Your task to perform on an android device: turn notification dots on Image 0: 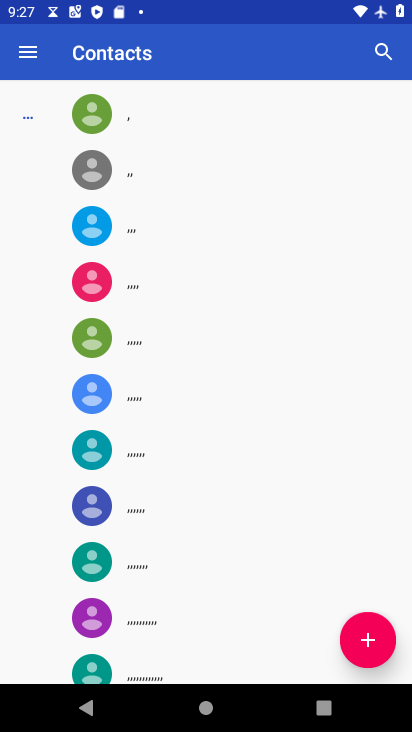
Step 0: press home button
Your task to perform on an android device: turn notification dots on Image 1: 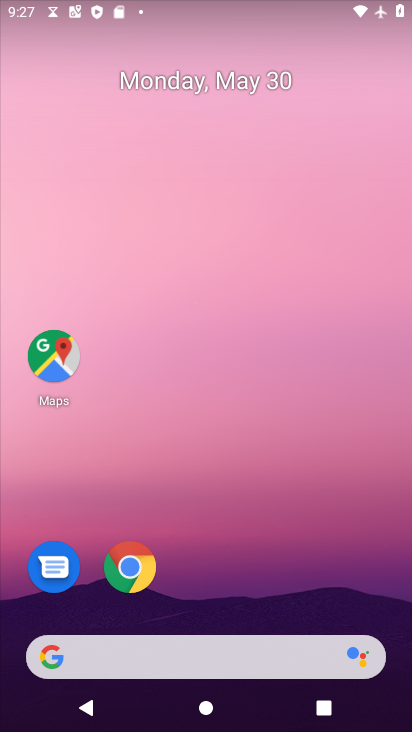
Step 1: drag from (249, 590) to (239, 183)
Your task to perform on an android device: turn notification dots on Image 2: 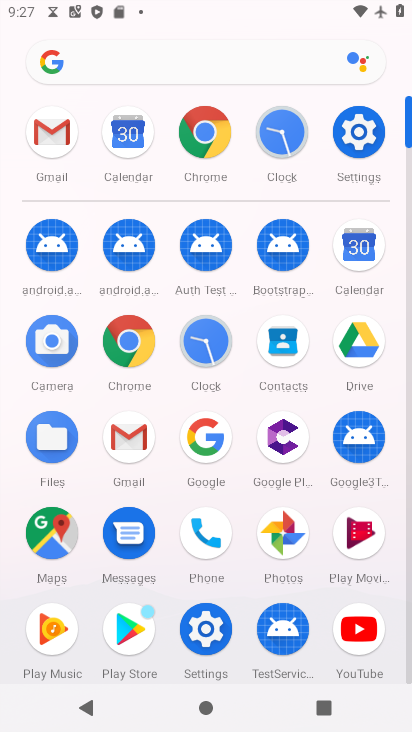
Step 2: click (348, 145)
Your task to perform on an android device: turn notification dots on Image 3: 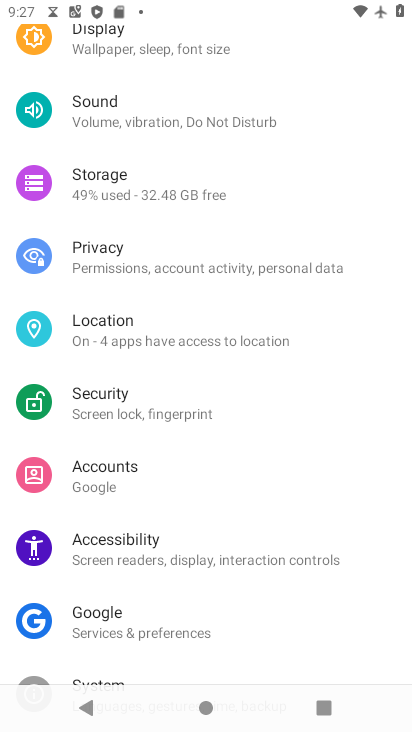
Step 3: drag from (189, 93) to (164, 662)
Your task to perform on an android device: turn notification dots on Image 4: 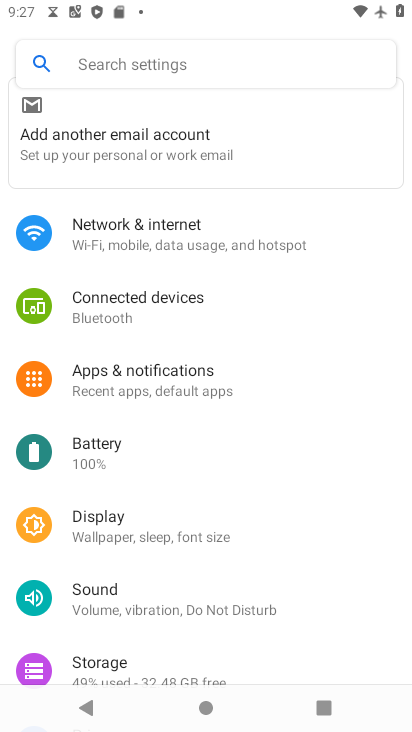
Step 4: click (150, 396)
Your task to perform on an android device: turn notification dots on Image 5: 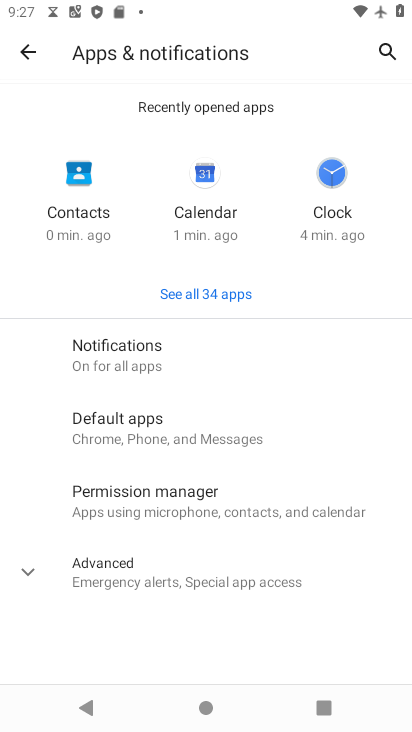
Step 5: click (165, 364)
Your task to perform on an android device: turn notification dots on Image 6: 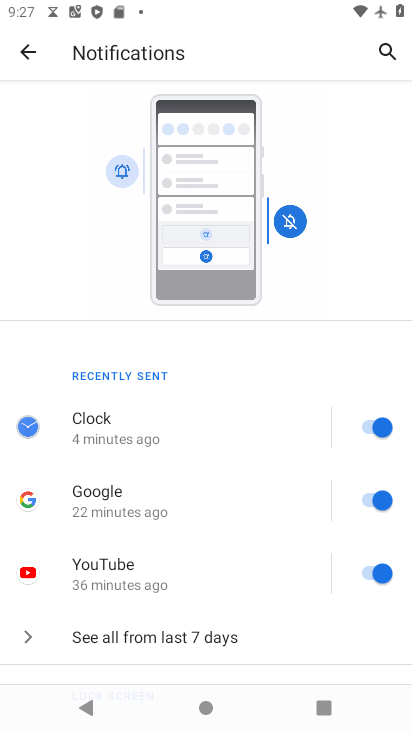
Step 6: drag from (277, 677) to (236, 272)
Your task to perform on an android device: turn notification dots on Image 7: 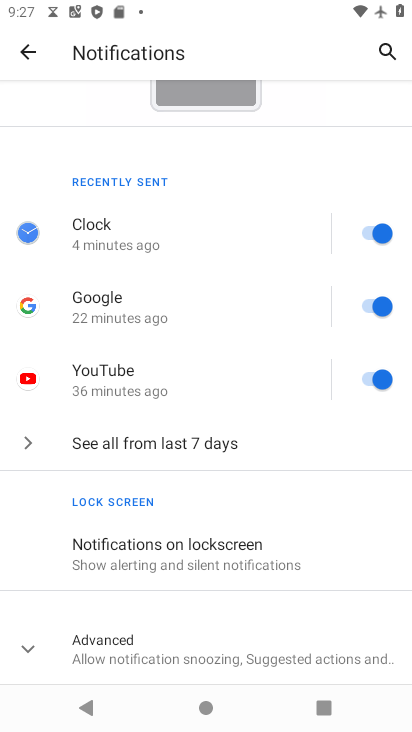
Step 7: click (310, 648)
Your task to perform on an android device: turn notification dots on Image 8: 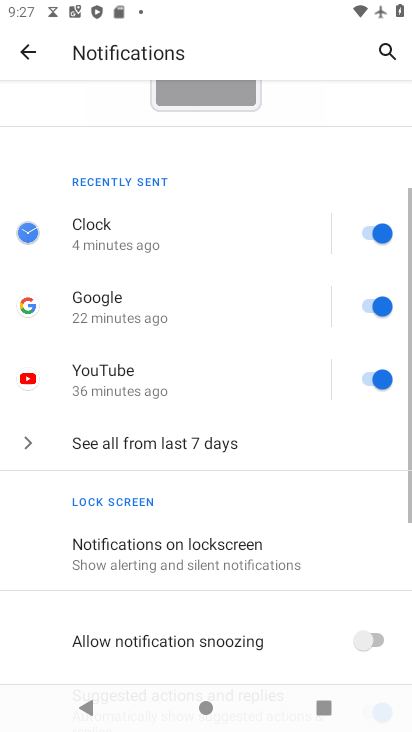
Step 8: task complete